Your task to perform on an android device: Open Wikipedia Image 0: 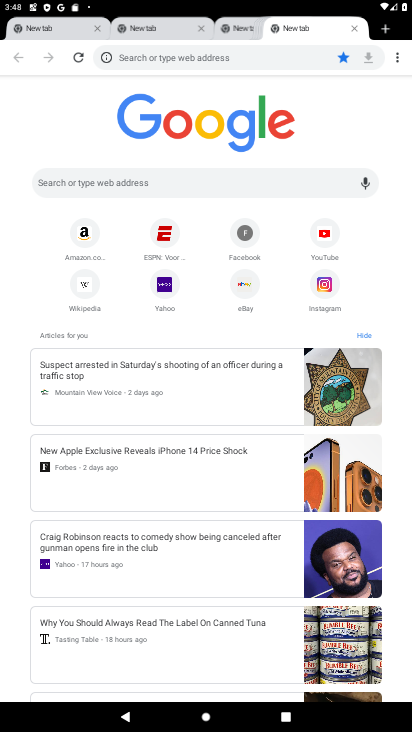
Step 0: click (84, 285)
Your task to perform on an android device: Open Wikipedia Image 1: 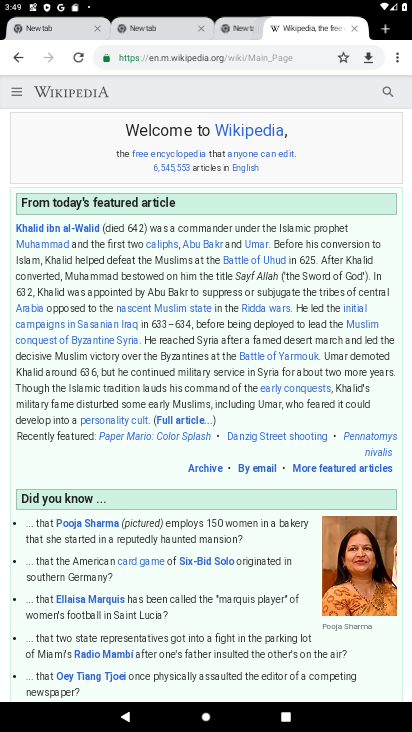
Step 1: task complete